Your task to perform on an android device: Show me popular videos on Youtube Image 0: 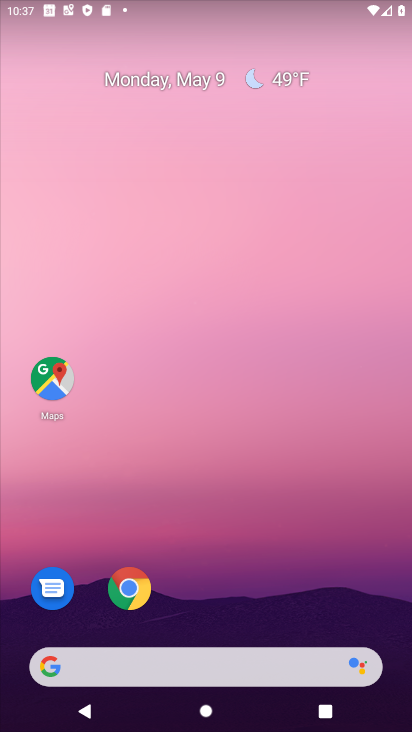
Step 0: drag from (224, 726) to (215, 142)
Your task to perform on an android device: Show me popular videos on Youtube Image 1: 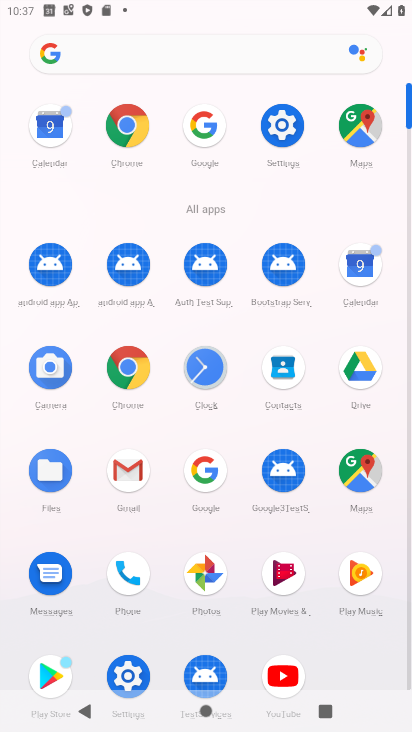
Step 1: drag from (218, 727) to (206, 179)
Your task to perform on an android device: Show me popular videos on Youtube Image 2: 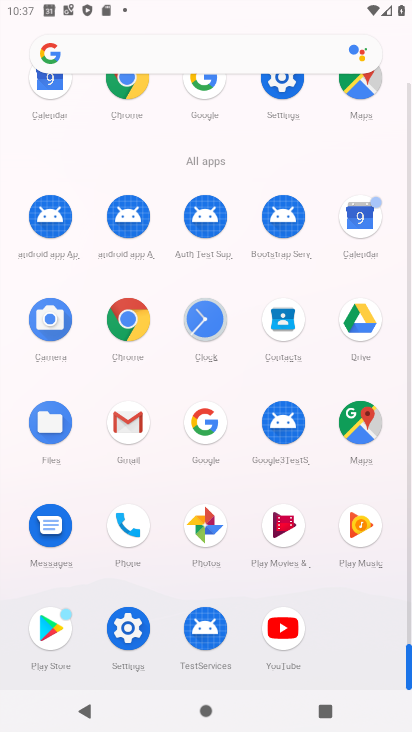
Step 2: click (291, 634)
Your task to perform on an android device: Show me popular videos on Youtube Image 3: 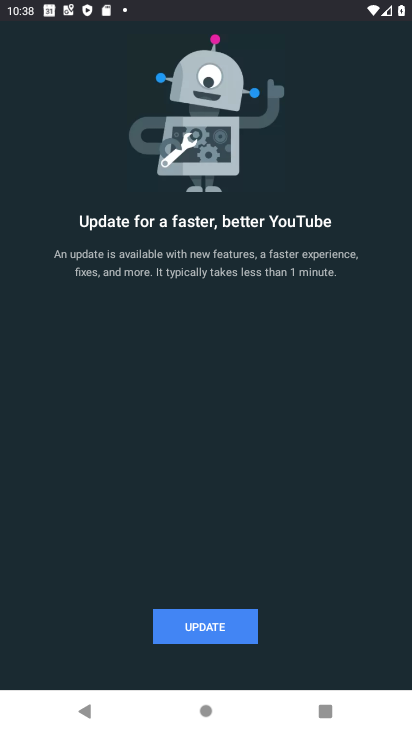
Step 3: task complete